Your task to perform on an android device: see sites visited before in the chrome app Image 0: 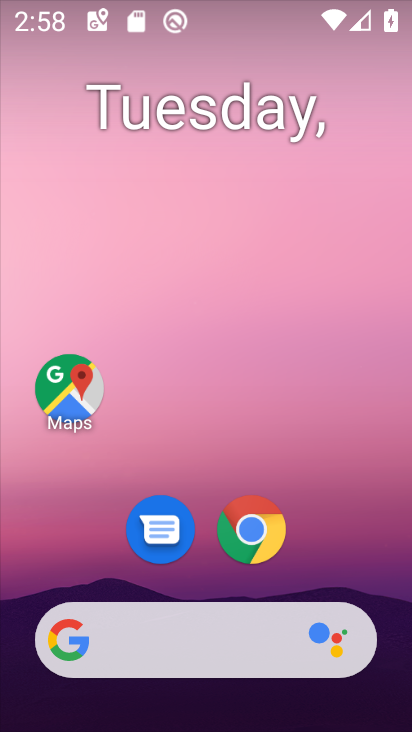
Step 0: drag from (344, 545) to (358, 122)
Your task to perform on an android device: see sites visited before in the chrome app Image 1: 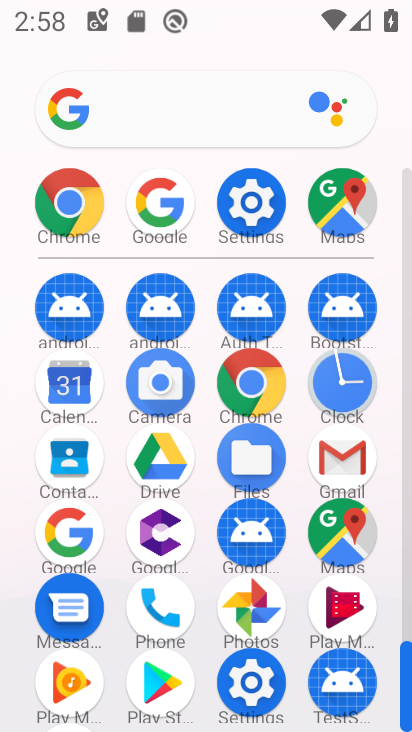
Step 1: click (244, 382)
Your task to perform on an android device: see sites visited before in the chrome app Image 2: 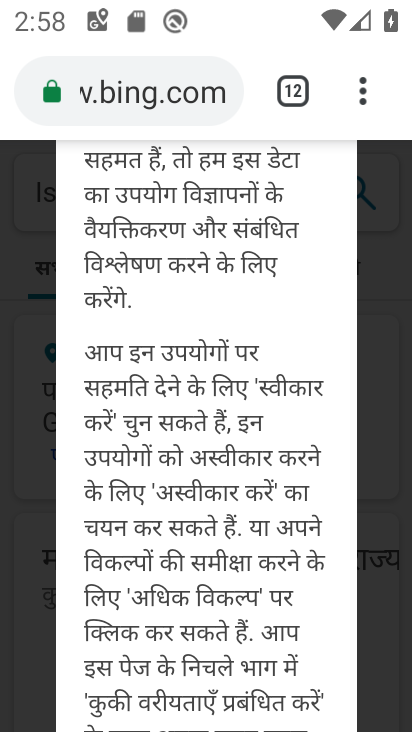
Step 2: click (349, 73)
Your task to perform on an android device: see sites visited before in the chrome app Image 3: 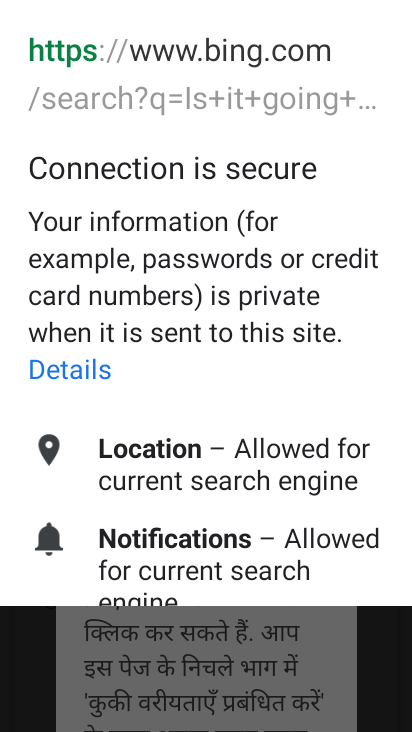
Step 3: press back button
Your task to perform on an android device: see sites visited before in the chrome app Image 4: 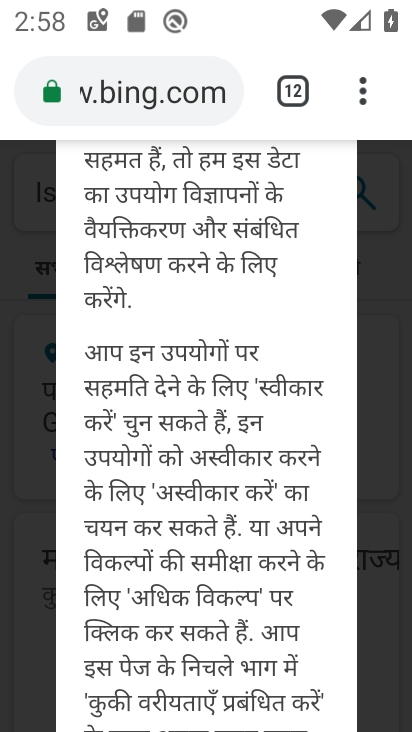
Step 4: click (388, 86)
Your task to perform on an android device: see sites visited before in the chrome app Image 5: 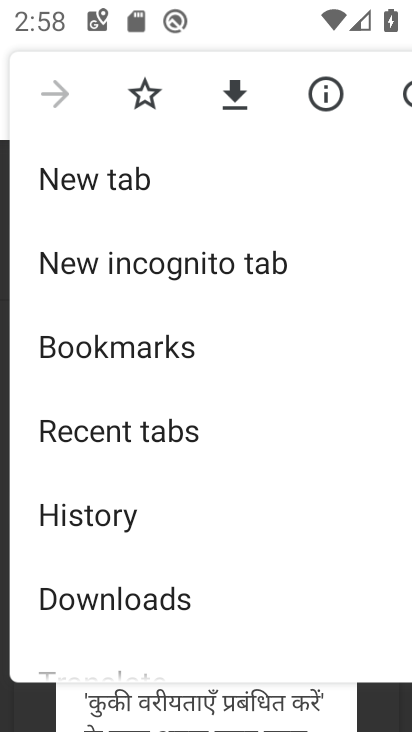
Step 5: click (124, 496)
Your task to perform on an android device: see sites visited before in the chrome app Image 6: 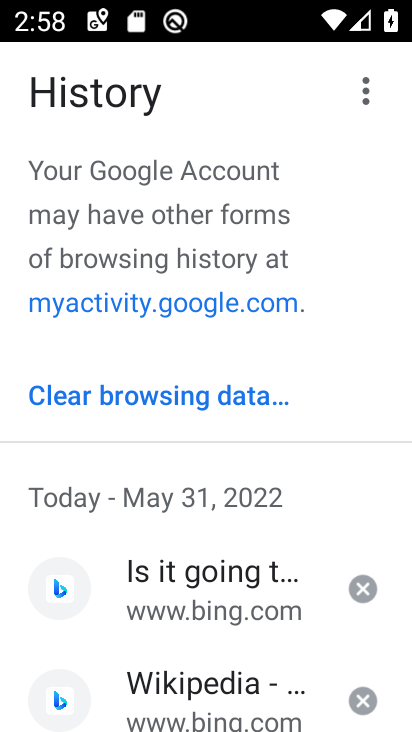
Step 6: task complete